Your task to perform on an android device: snooze an email in the gmail app Image 0: 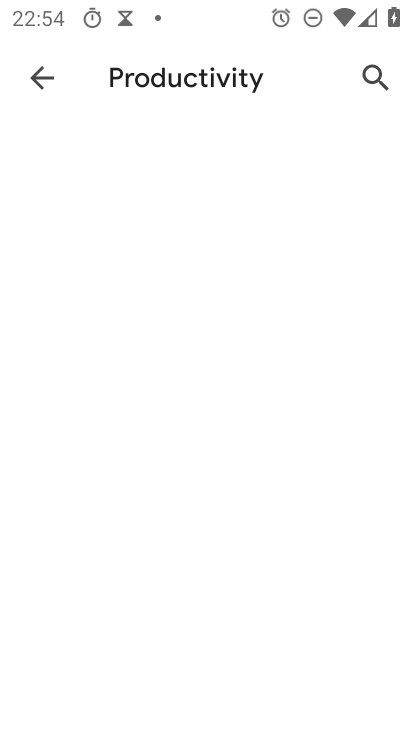
Step 0: drag from (199, 669) to (198, 264)
Your task to perform on an android device: snooze an email in the gmail app Image 1: 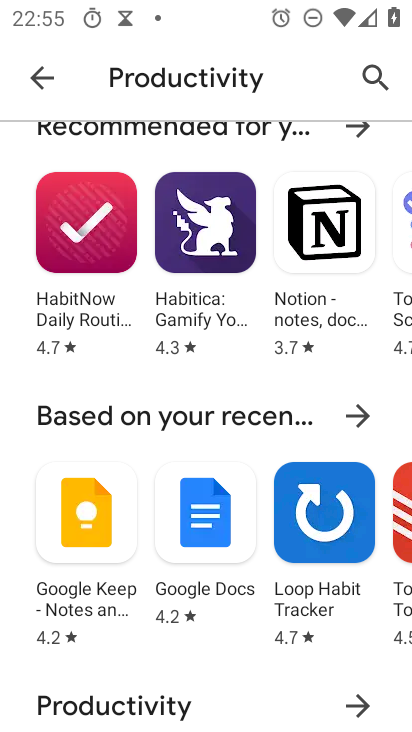
Step 1: press home button
Your task to perform on an android device: snooze an email in the gmail app Image 2: 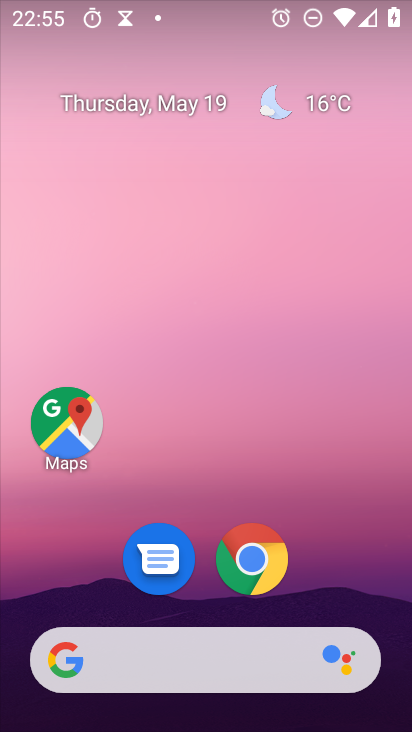
Step 2: drag from (241, 720) to (232, 192)
Your task to perform on an android device: snooze an email in the gmail app Image 3: 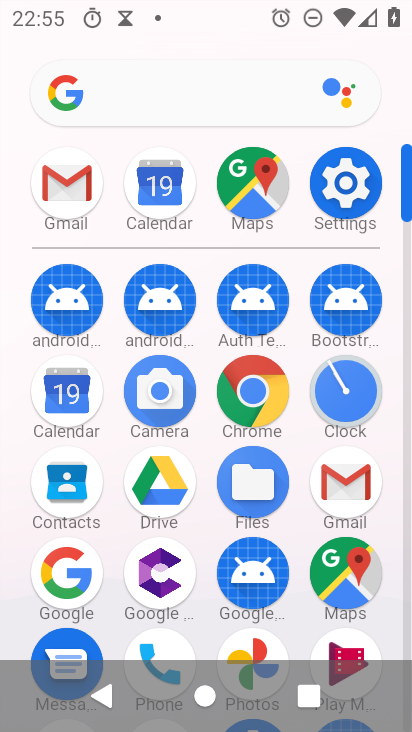
Step 3: click (353, 476)
Your task to perform on an android device: snooze an email in the gmail app Image 4: 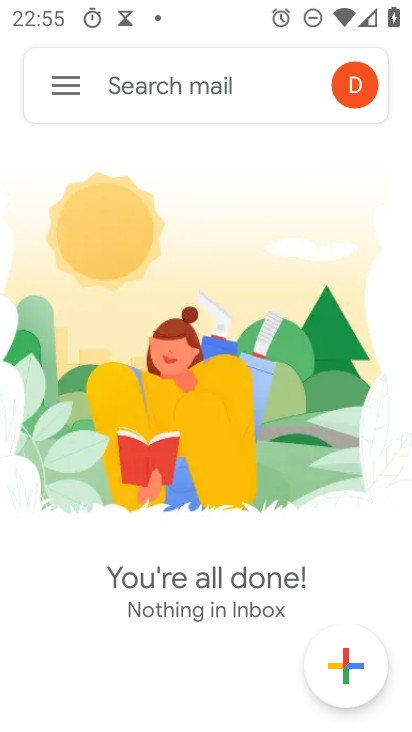
Step 4: task complete